Your task to perform on an android device: Go to ESPN.com Image 0: 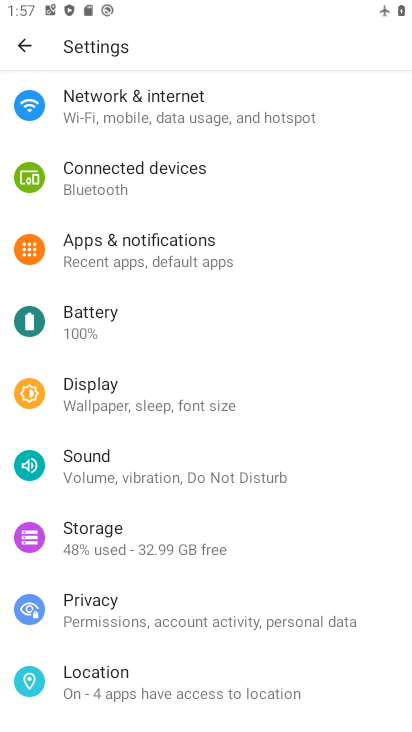
Step 0: press home button
Your task to perform on an android device: Go to ESPN.com Image 1: 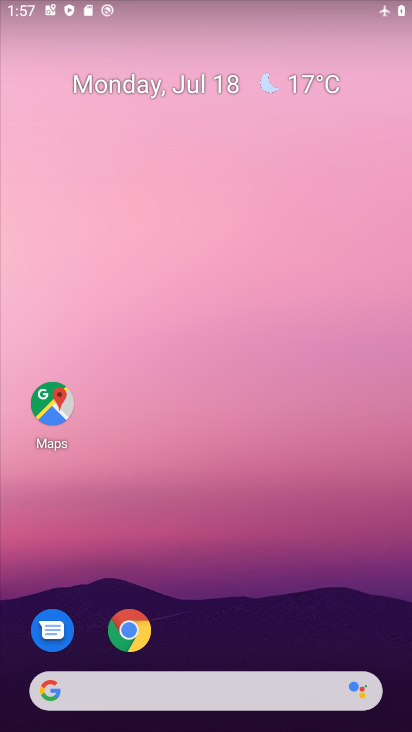
Step 1: click (266, 697)
Your task to perform on an android device: Go to ESPN.com Image 2: 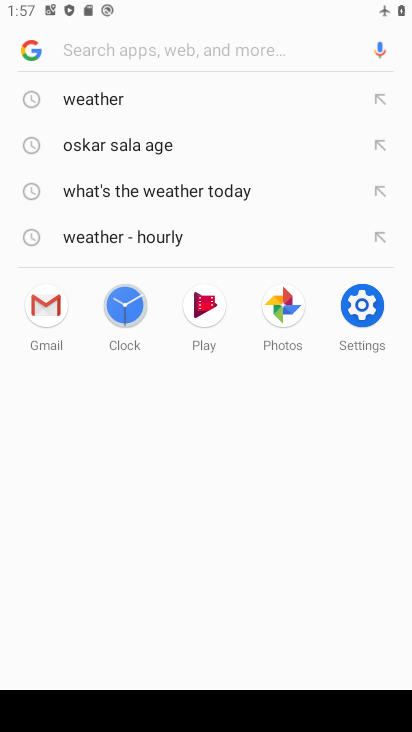
Step 2: type "espn.com"
Your task to perform on an android device: Go to ESPN.com Image 3: 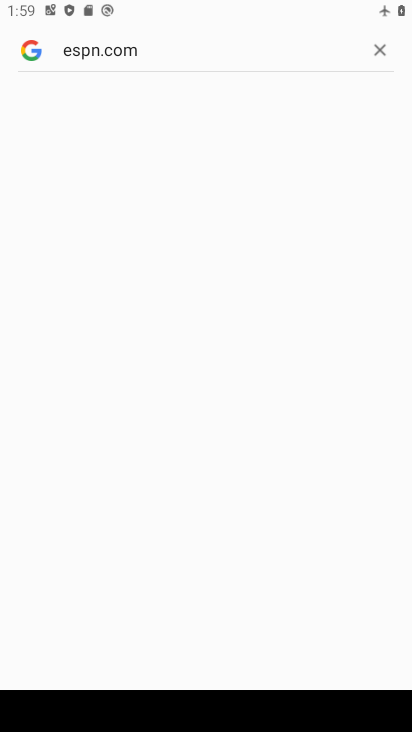
Step 3: task complete